Your task to perform on an android device: turn off sleep mode Image 0: 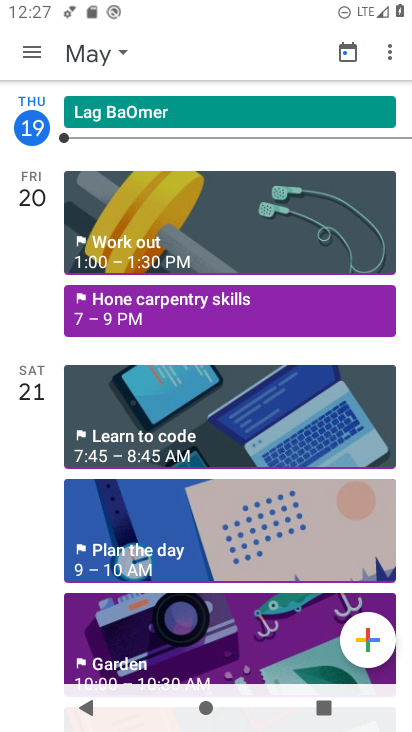
Step 0: press home button
Your task to perform on an android device: turn off sleep mode Image 1: 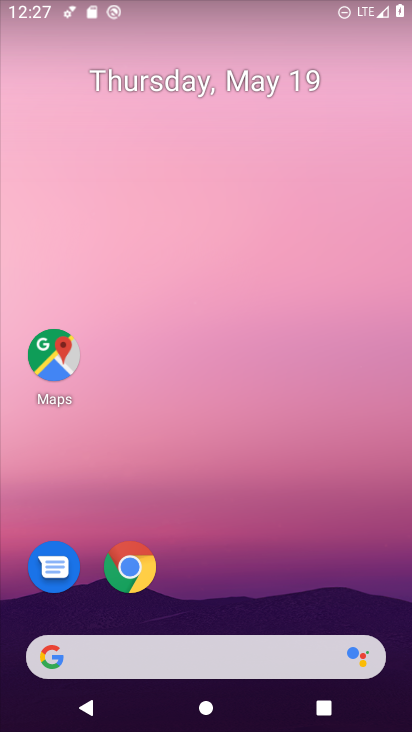
Step 1: drag from (266, 513) to (202, 64)
Your task to perform on an android device: turn off sleep mode Image 2: 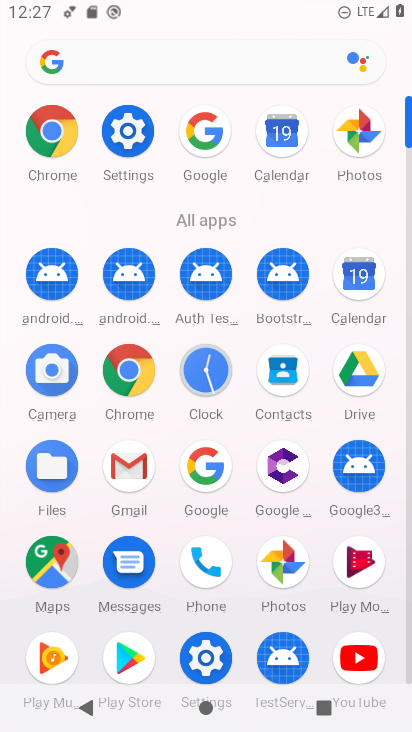
Step 2: click (134, 131)
Your task to perform on an android device: turn off sleep mode Image 3: 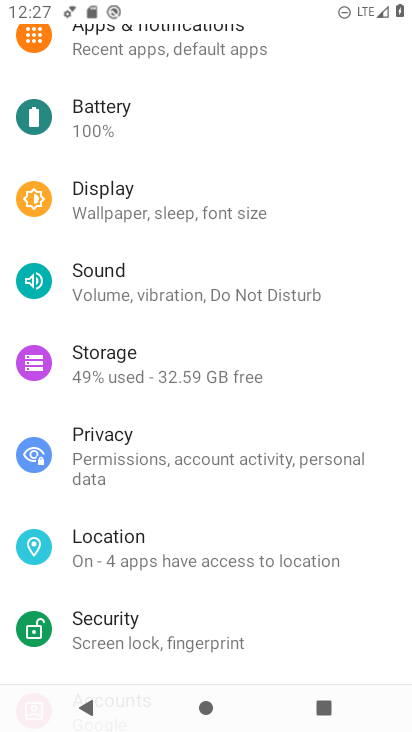
Step 3: click (172, 195)
Your task to perform on an android device: turn off sleep mode Image 4: 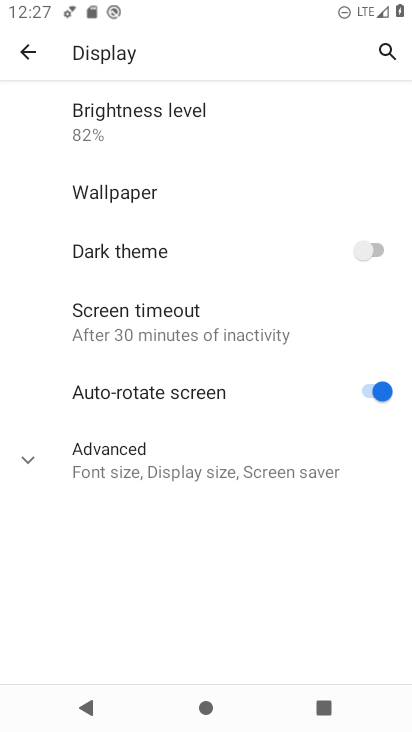
Step 4: click (33, 457)
Your task to perform on an android device: turn off sleep mode Image 5: 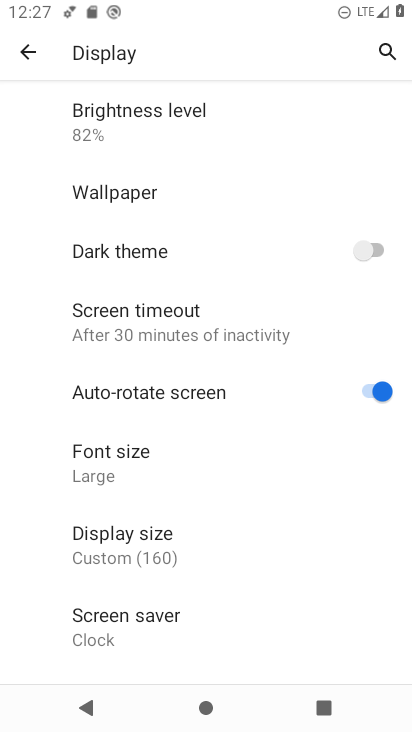
Step 5: task complete